Your task to perform on an android device: Open the web browser Image 0: 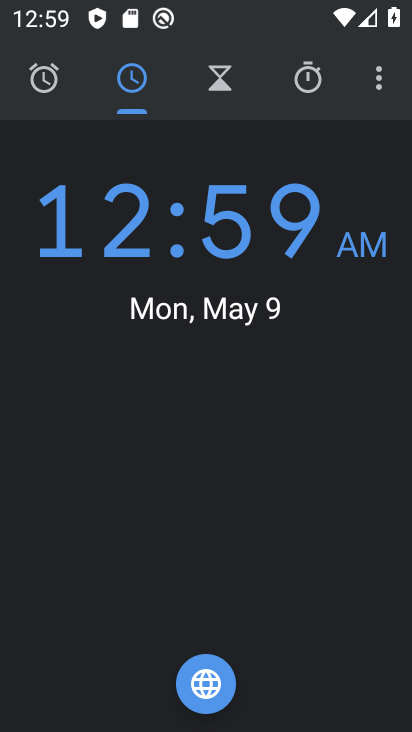
Step 0: press home button
Your task to perform on an android device: Open the web browser Image 1: 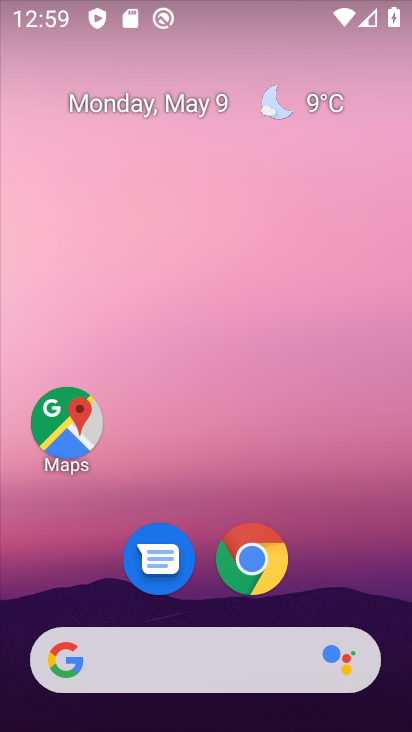
Step 1: click (283, 306)
Your task to perform on an android device: Open the web browser Image 2: 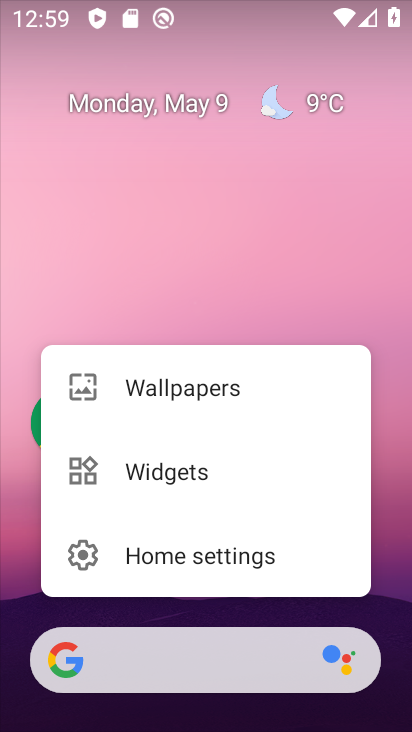
Step 2: click (288, 262)
Your task to perform on an android device: Open the web browser Image 3: 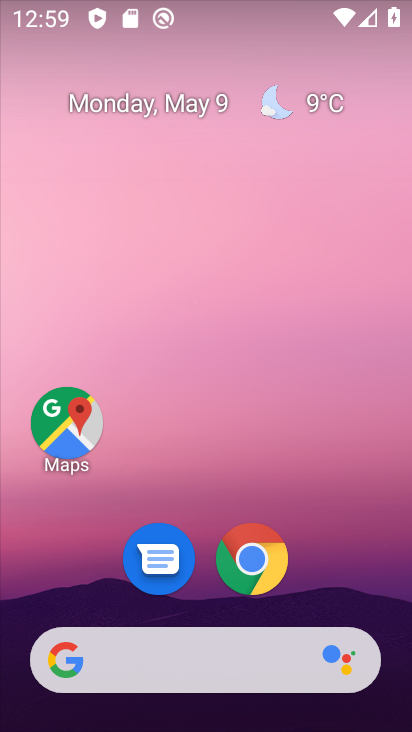
Step 3: drag from (322, 482) to (321, 137)
Your task to perform on an android device: Open the web browser Image 4: 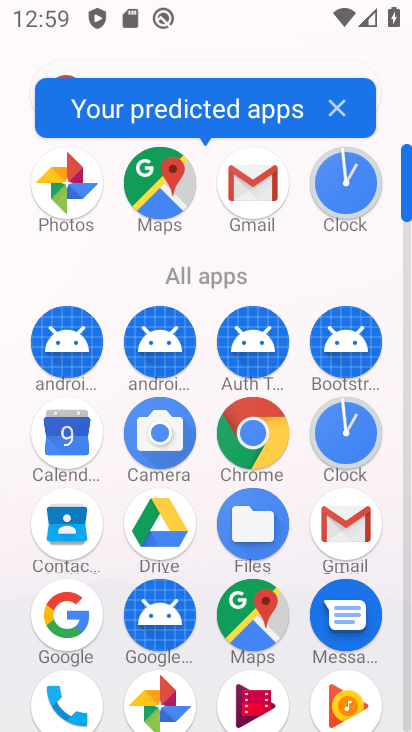
Step 4: click (253, 426)
Your task to perform on an android device: Open the web browser Image 5: 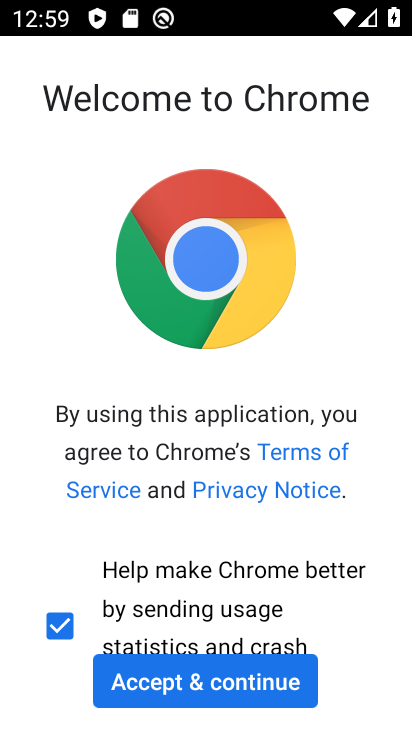
Step 5: click (238, 674)
Your task to perform on an android device: Open the web browser Image 6: 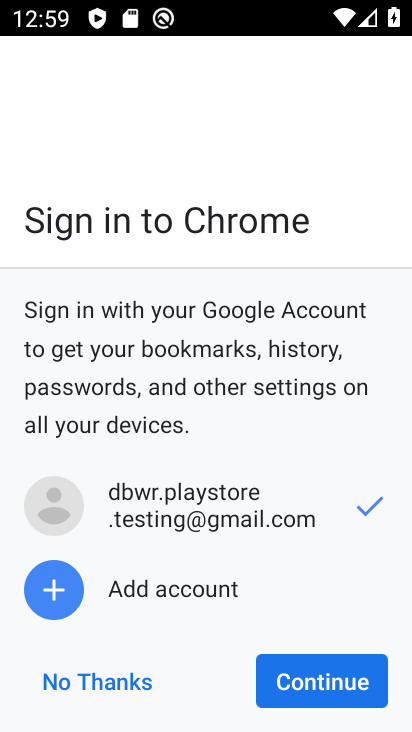
Step 6: click (320, 661)
Your task to perform on an android device: Open the web browser Image 7: 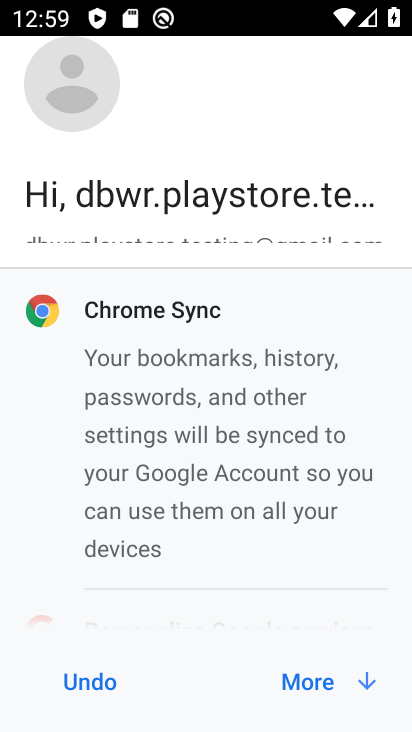
Step 7: click (300, 671)
Your task to perform on an android device: Open the web browser Image 8: 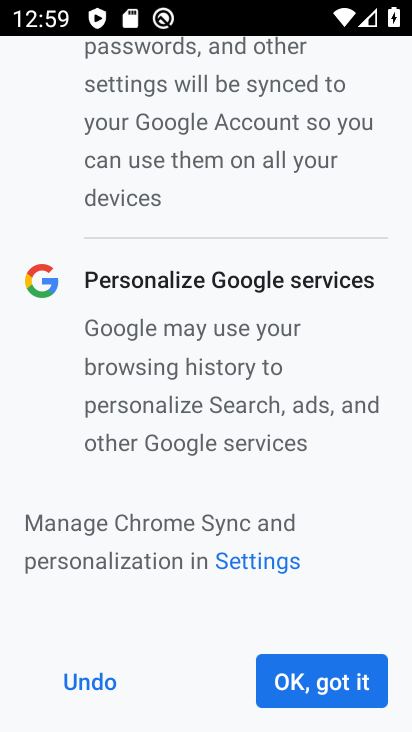
Step 8: click (293, 685)
Your task to perform on an android device: Open the web browser Image 9: 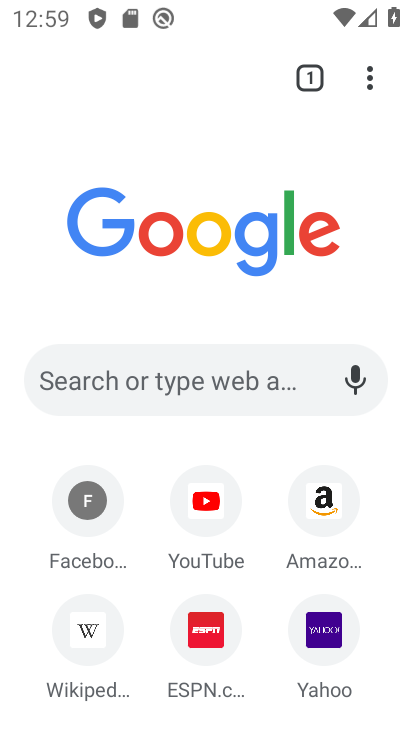
Step 9: task complete